Your task to perform on an android device: Open Yahoo.com Image 0: 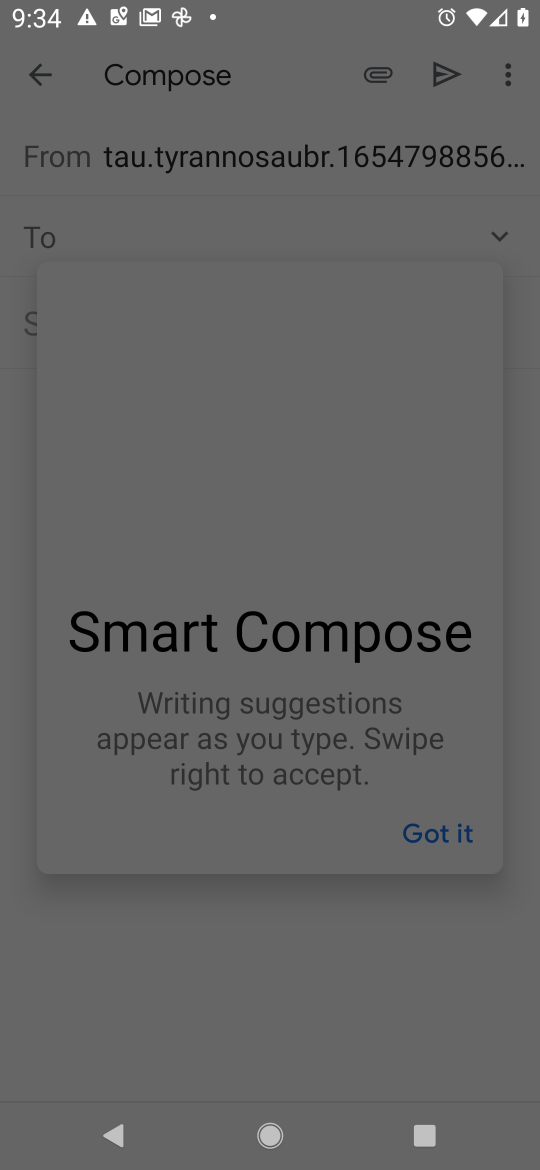
Step 0: press home button
Your task to perform on an android device: Open Yahoo.com Image 1: 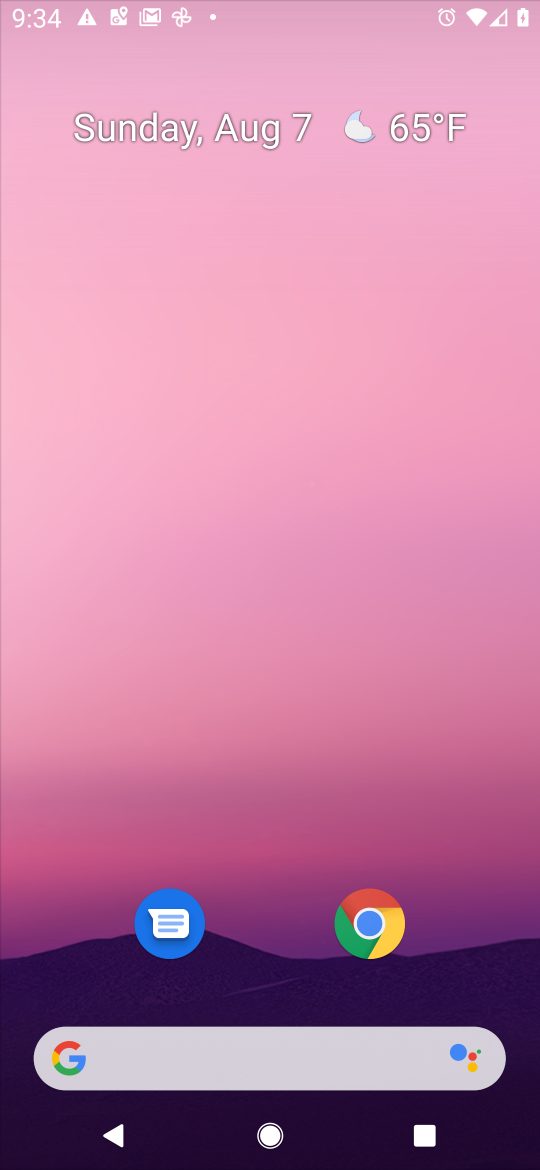
Step 1: drag from (444, 833) to (318, 22)
Your task to perform on an android device: Open Yahoo.com Image 2: 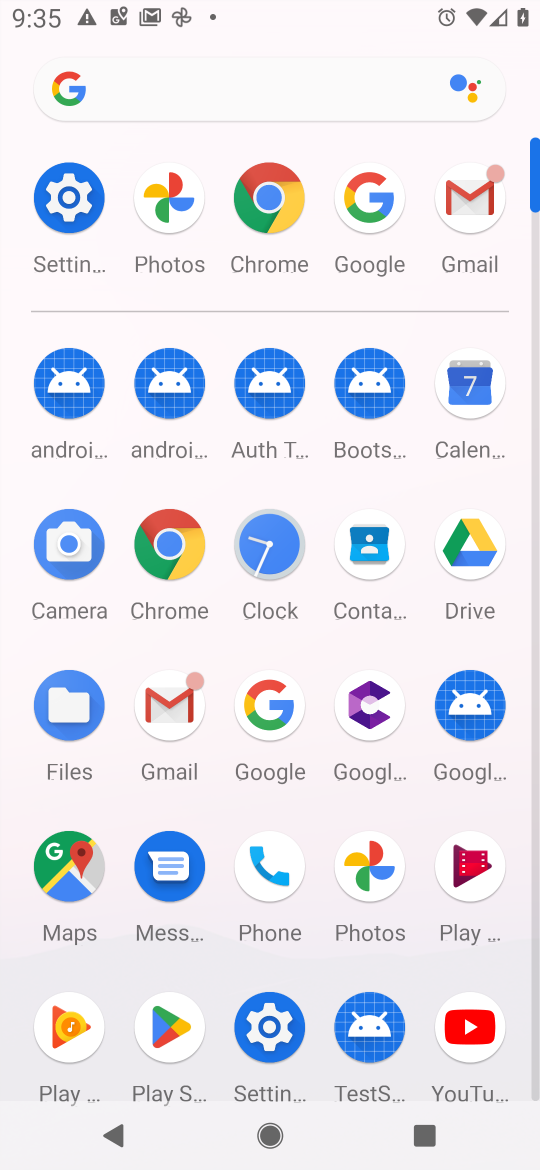
Step 2: click (261, 709)
Your task to perform on an android device: Open Yahoo.com Image 3: 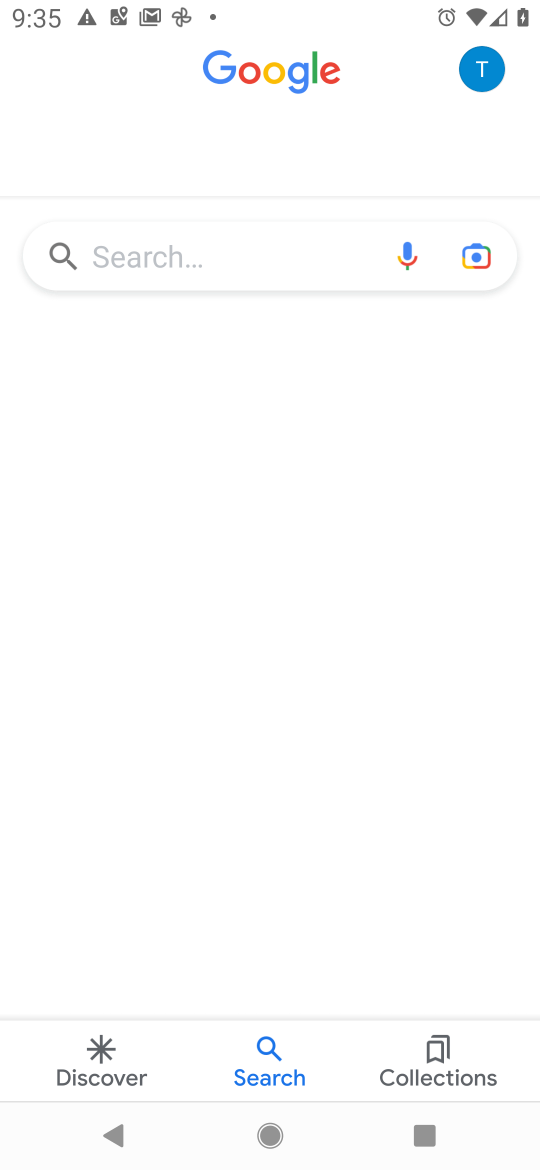
Step 3: click (193, 269)
Your task to perform on an android device: Open Yahoo.com Image 4: 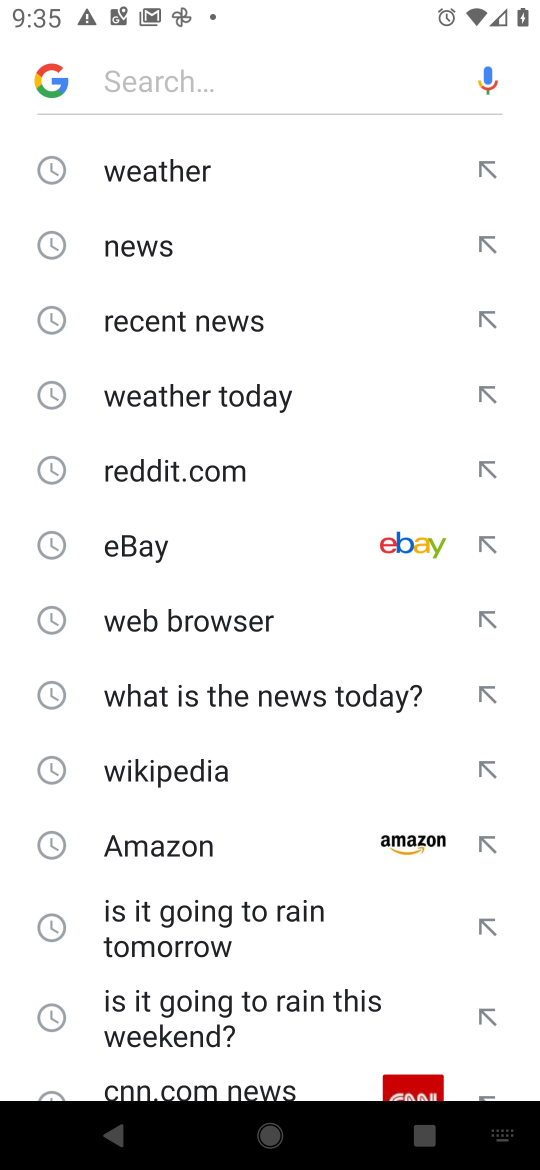
Step 4: type "Yahoo.com"
Your task to perform on an android device: Open Yahoo.com Image 5: 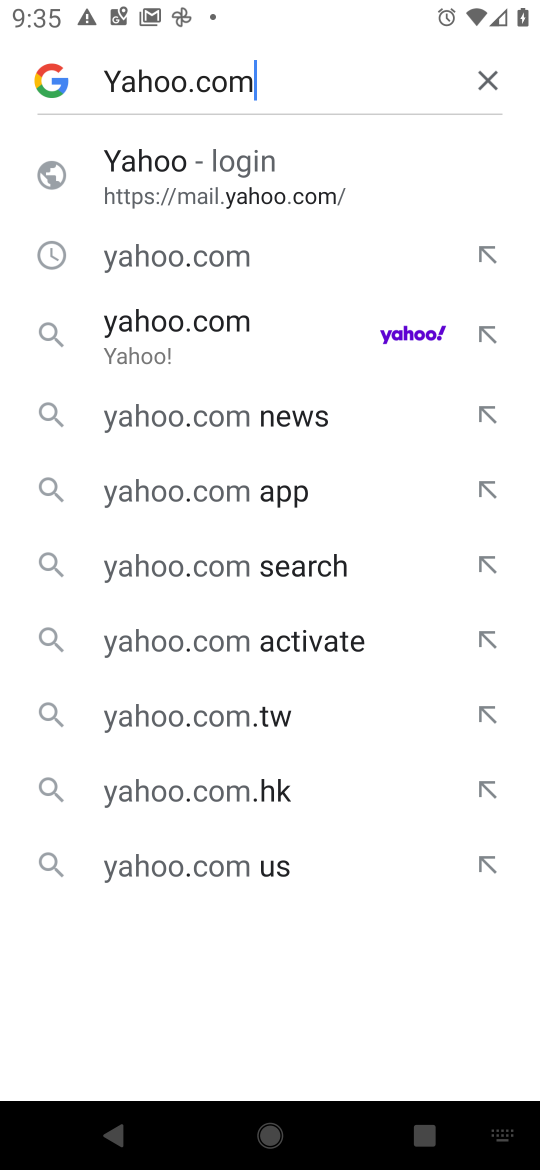
Step 5: click (209, 341)
Your task to perform on an android device: Open Yahoo.com Image 6: 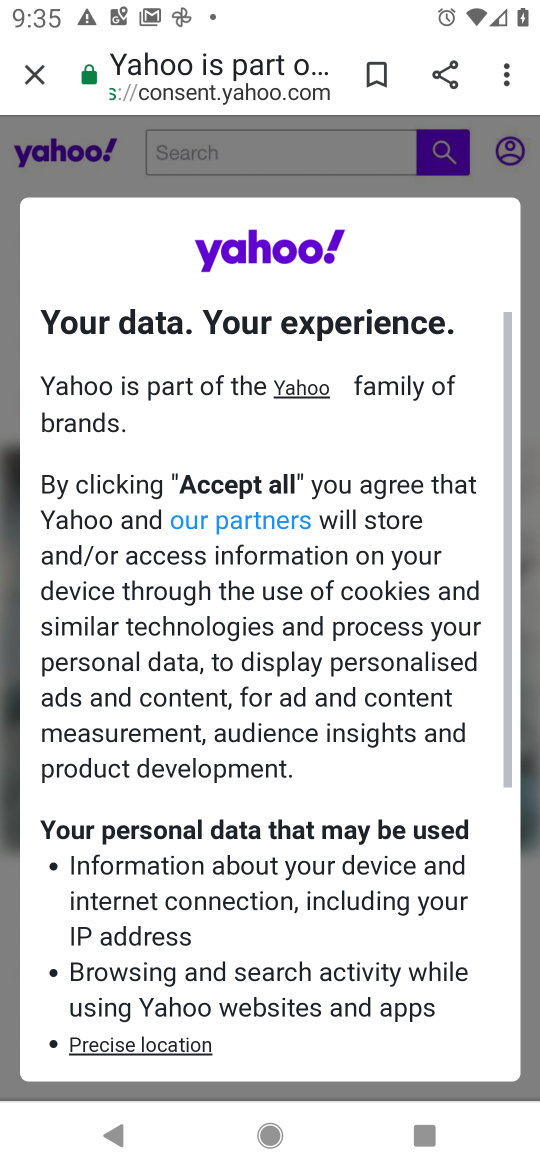
Step 6: task complete